Your task to perform on an android device: Is it going to rain this weekend? Image 0: 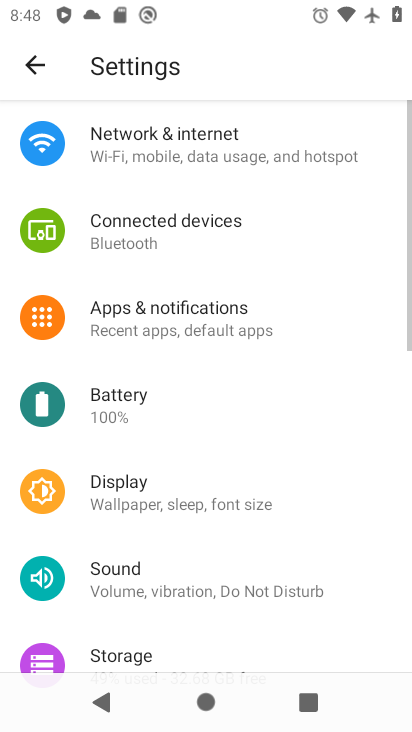
Step 0: press home button
Your task to perform on an android device: Is it going to rain this weekend? Image 1: 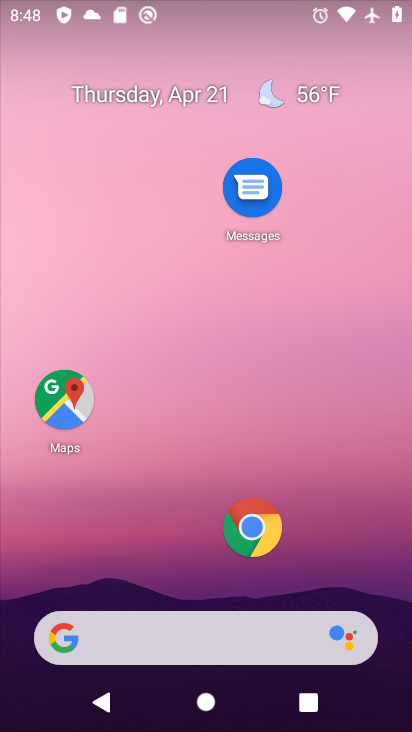
Step 1: click (310, 95)
Your task to perform on an android device: Is it going to rain this weekend? Image 2: 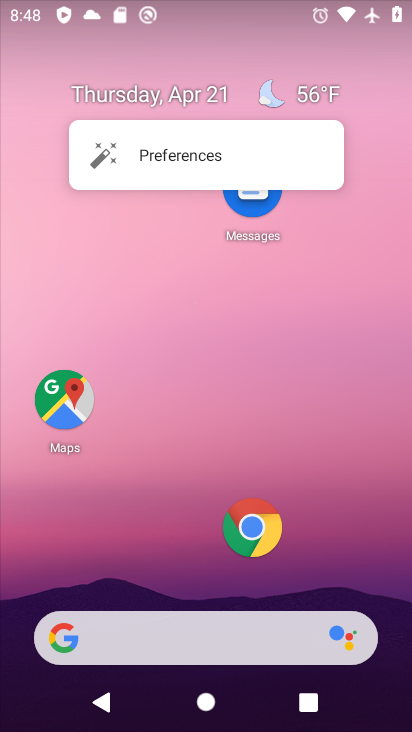
Step 2: click (302, 95)
Your task to perform on an android device: Is it going to rain this weekend? Image 3: 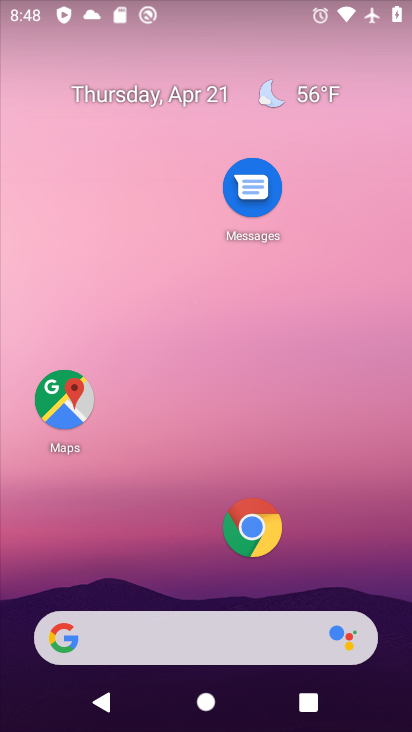
Step 3: click (300, 93)
Your task to perform on an android device: Is it going to rain this weekend? Image 4: 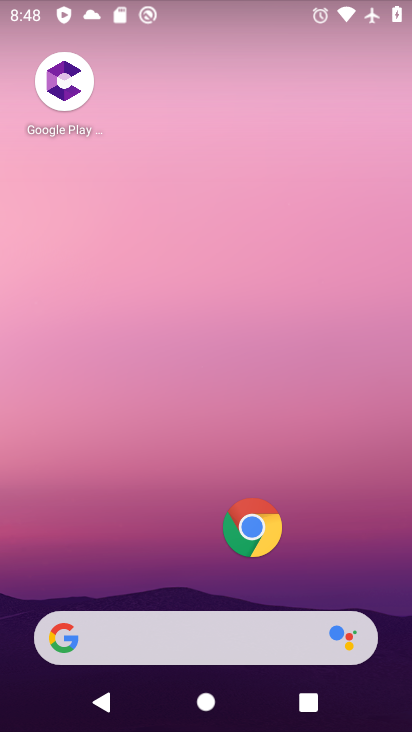
Step 4: drag from (41, 375) to (368, 411)
Your task to perform on an android device: Is it going to rain this weekend? Image 5: 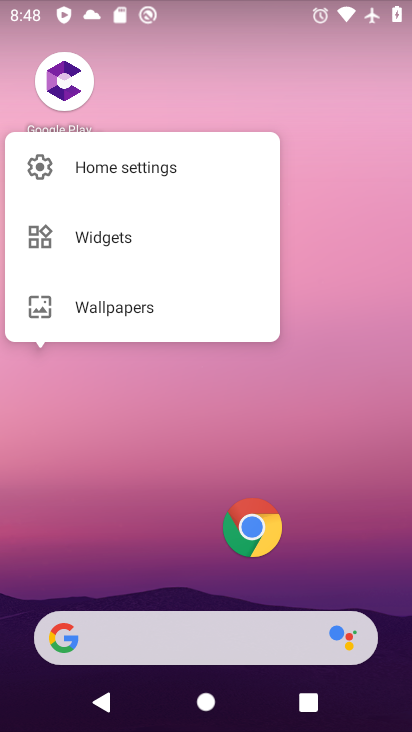
Step 5: click (168, 466)
Your task to perform on an android device: Is it going to rain this weekend? Image 6: 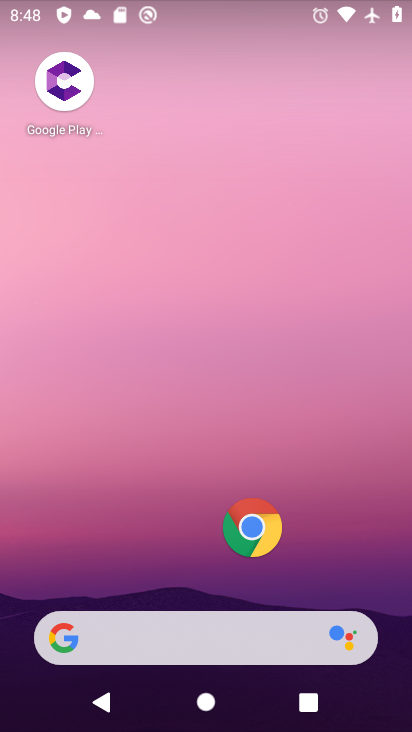
Step 6: drag from (67, 194) to (404, 227)
Your task to perform on an android device: Is it going to rain this weekend? Image 7: 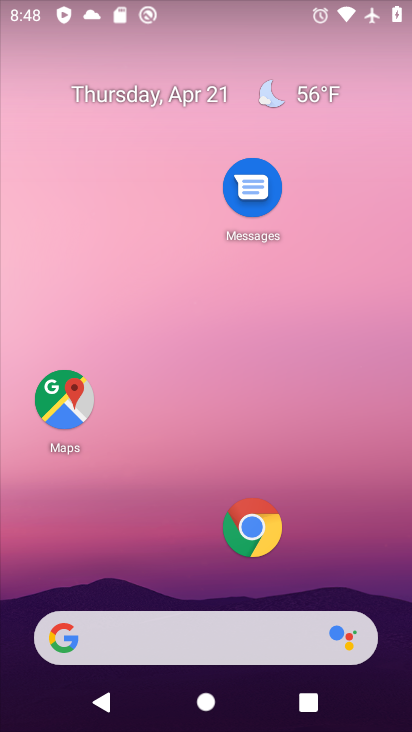
Step 7: click (296, 96)
Your task to perform on an android device: Is it going to rain this weekend? Image 8: 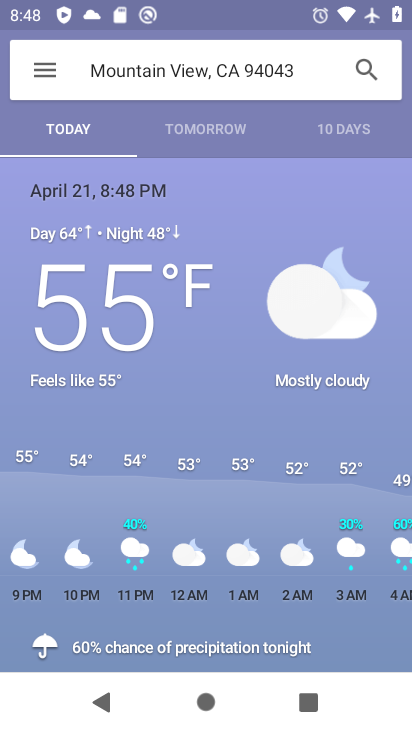
Step 8: click (332, 133)
Your task to perform on an android device: Is it going to rain this weekend? Image 9: 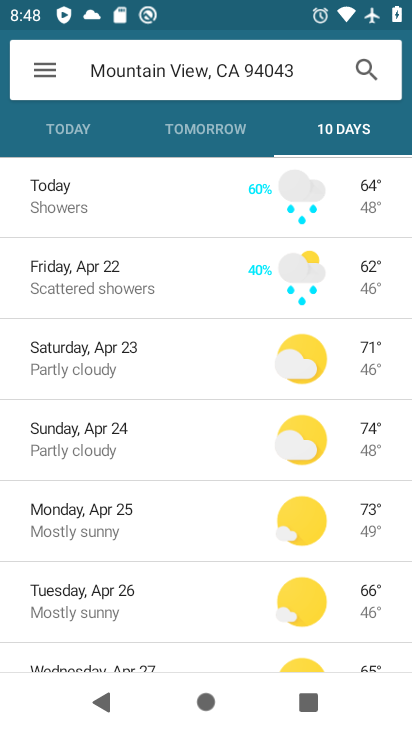
Step 9: click (101, 358)
Your task to perform on an android device: Is it going to rain this weekend? Image 10: 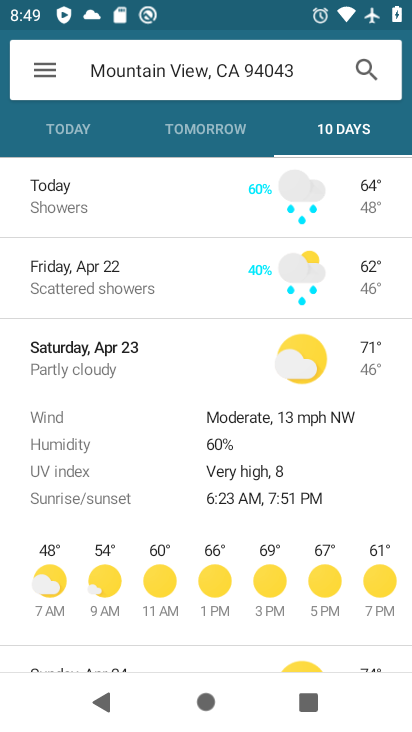
Step 10: task complete